Your task to perform on an android device: uninstall "Upside-Cash back on gas & food" Image 0: 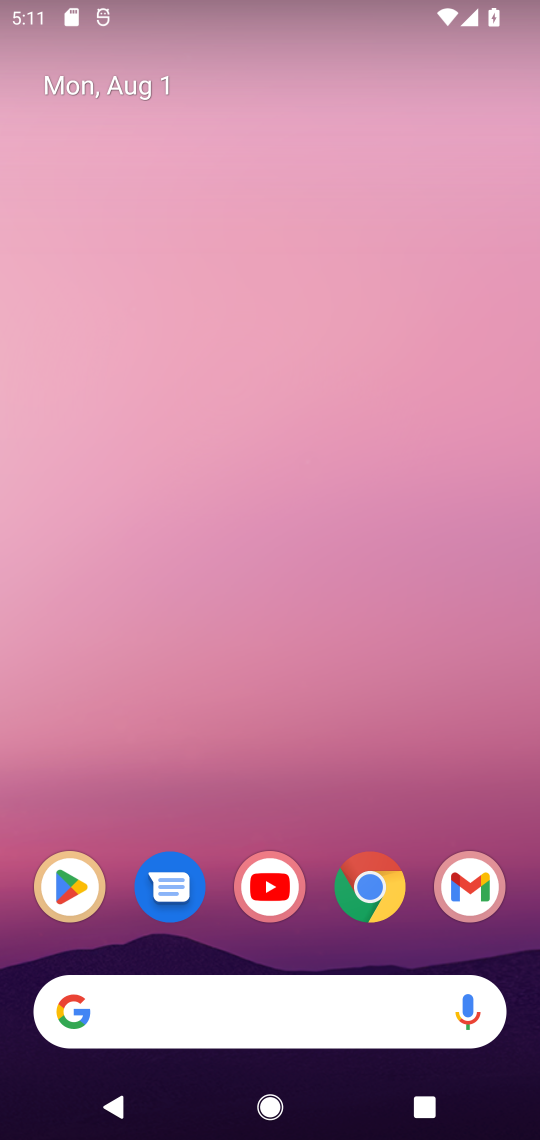
Step 0: drag from (290, 959) to (260, 116)
Your task to perform on an android device: uninstall "Upside-Cash back on gas & food" Image 1: 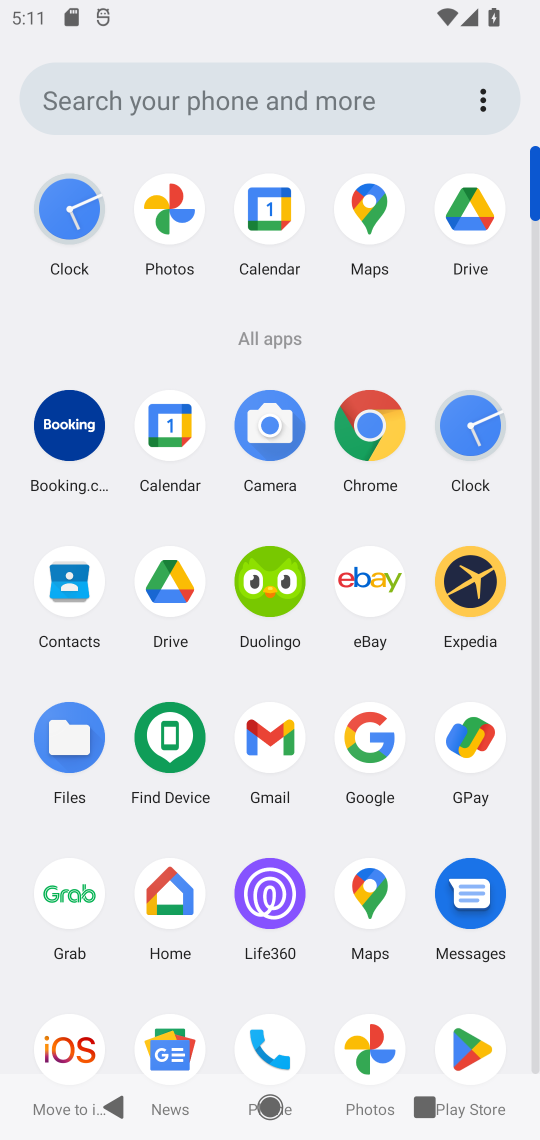
Step 1: click (481, 1048)
Your task to perform on an android device: uninstall "Upside-Cash back on gas & food" Image 2: 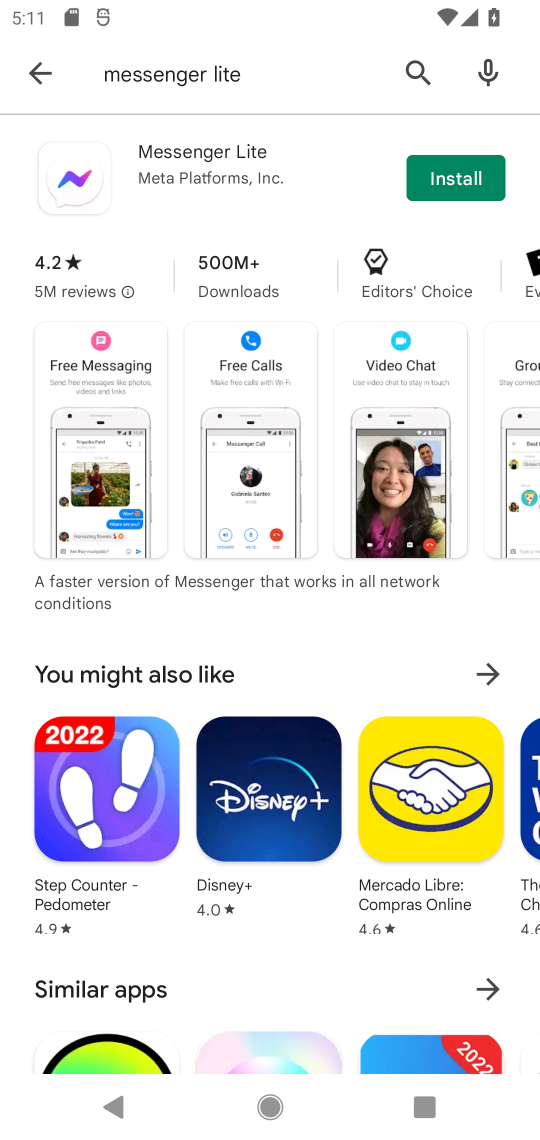
Step 2: click (24, 93)
Your task to perform on an android device: uninstall "Upside-Cash back on gas & food" Image 3: 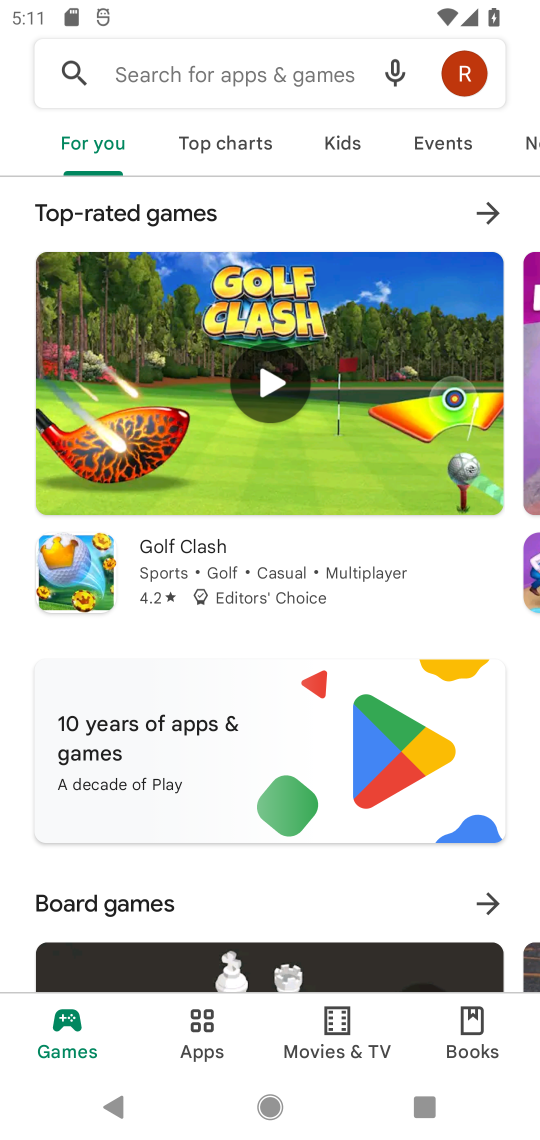
Step 3: click (166, 63)
Your task to perform on an android device: uninstall "Upside-Cash back on gas & food" Image 4: 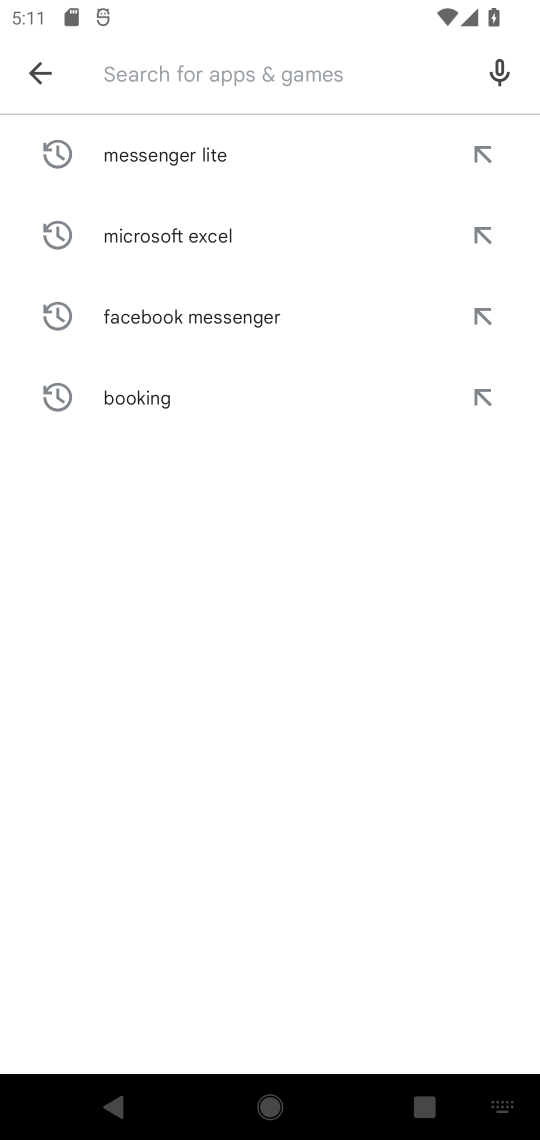
Step 4: type "Upside"
Your task to perform on an android device: uninstall "Upside-Cash back on gas & food" Image 5: 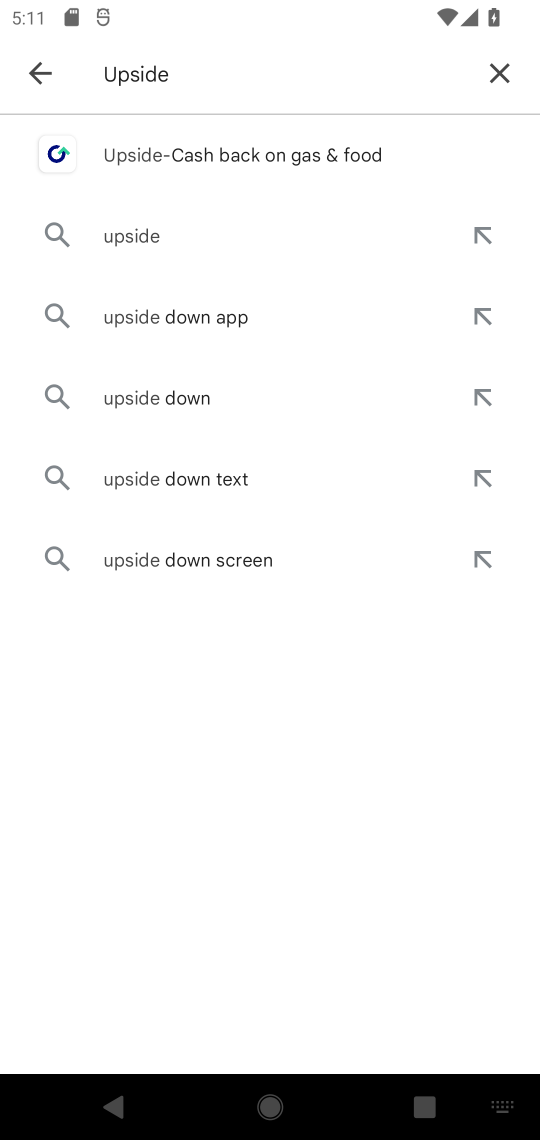
Step 5: click (118, 165)
Your task to perform on an android device: uninstall "Upside-Cash back on gas & food" Image 6: 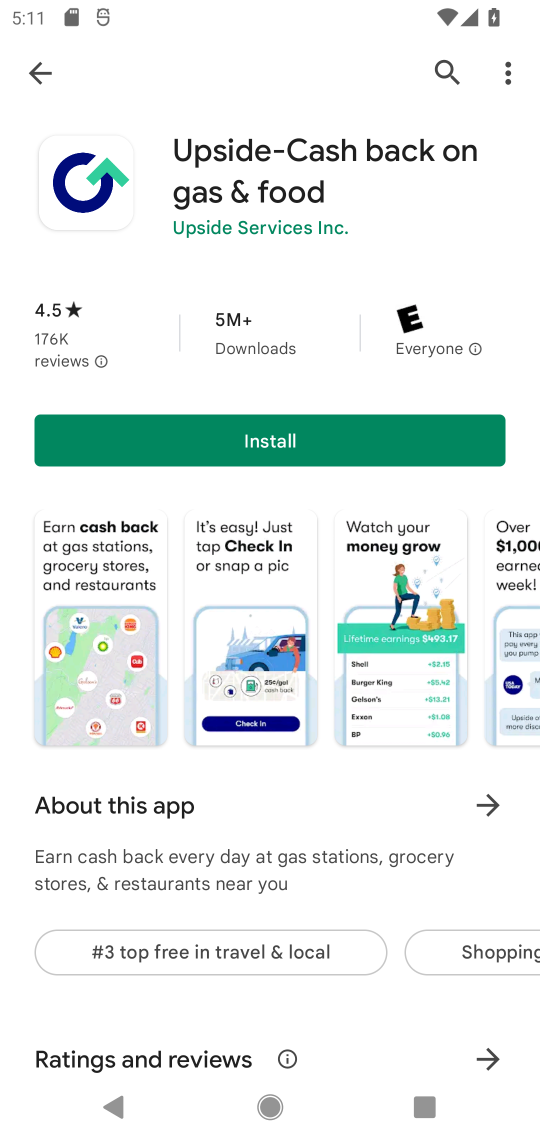
Step 6: task complete